Your task to perform on an android device: Open the calendar app, open the side menu, and click the "Day" option Image 0: 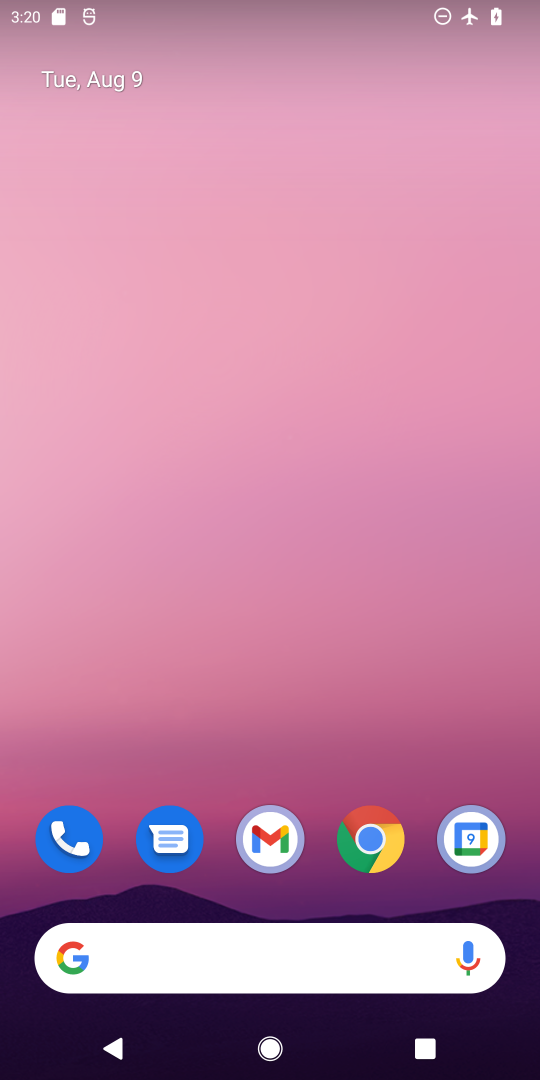
Step 0: press home button
Your task to perform on an android device: Open the calendar app, open the side menu, and click the "Day" option Image 1: 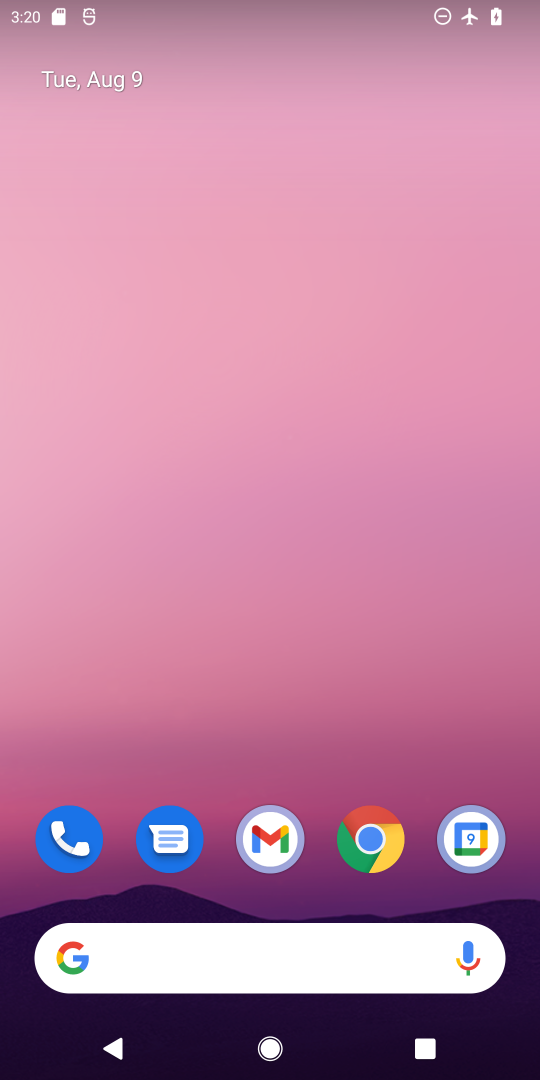
Step 1: drag from (326, 751) to (253, 32)
Your task to perform on an android device: Open the calendar app, open the side menu, and click the "Day" option Image 2: 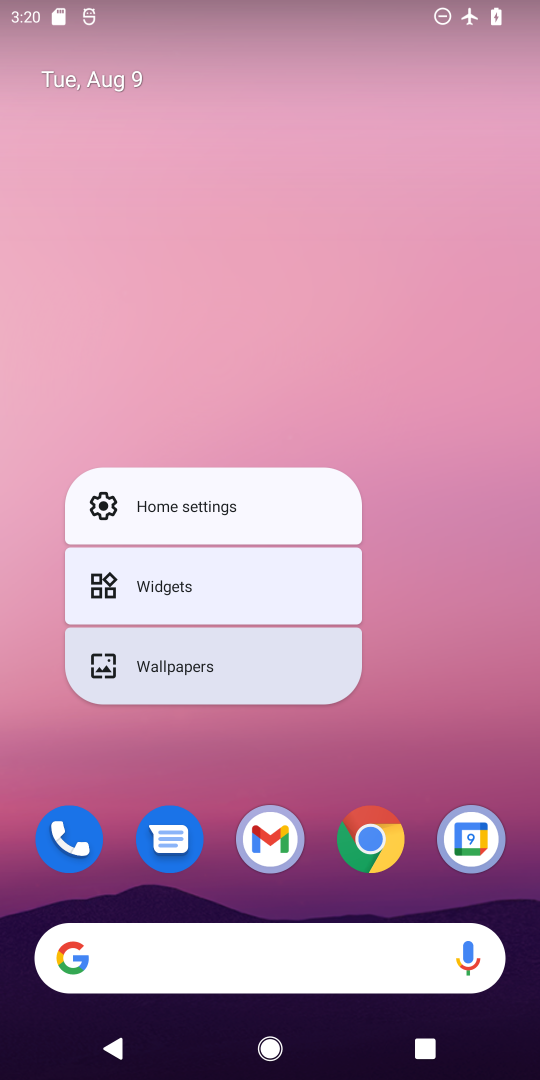
Step 2: drag from (205, 887) to (279, 140)
Your task to perform on an android device: Open the calendar app, open the side menu, and click the "Day" option Image 3: 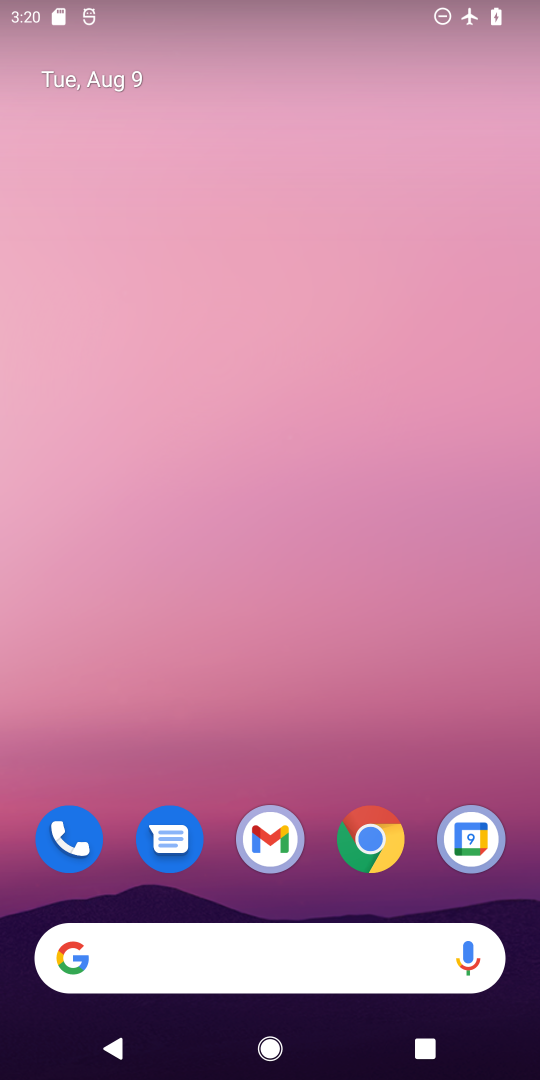
Step 3: drag from (324, 878) to (281, 202)
Your task to perform on an android device: Open the calendar app, open the side menu, and click the "Day" option Image 4: 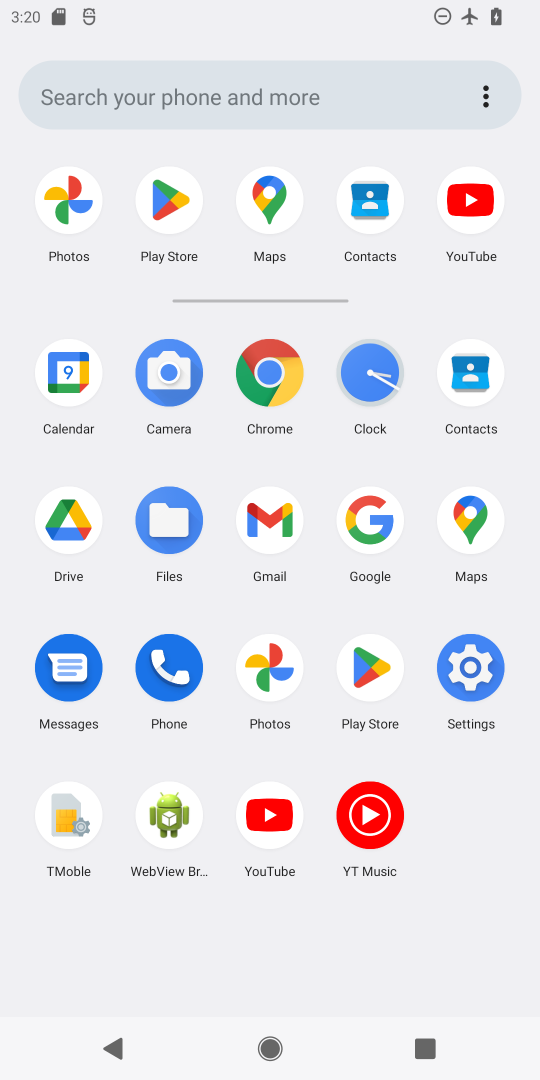
Step 4: click (62, 374)
Your task to perform on an android device: Open the calendar app, open the side menu, and click the "Day" option Image 5: 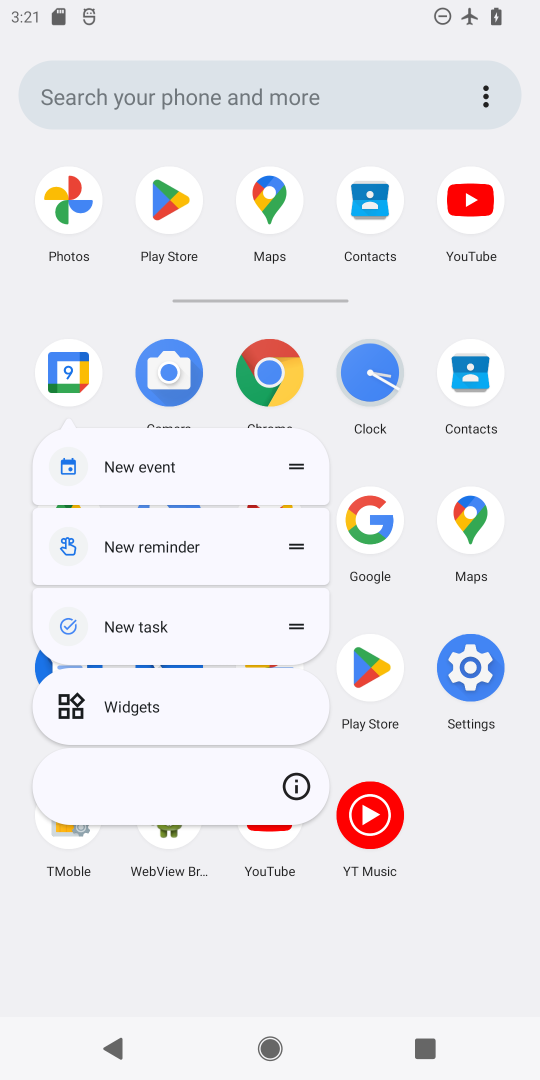
Step 5: click (14, 512)
Your task to perform on an android device: Open the calendar app, open the side menu, and click the "Day" option Image 6: 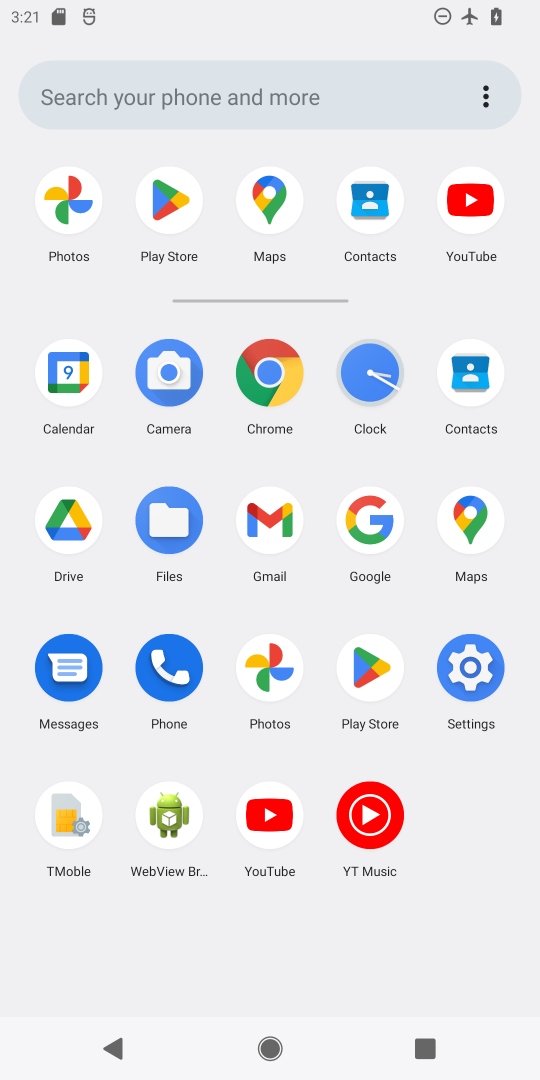
Step 6: click (14, 512)
Your task to perform on an android device: Open the calendar app, open the side menu, and click the "Day" option Image 7: 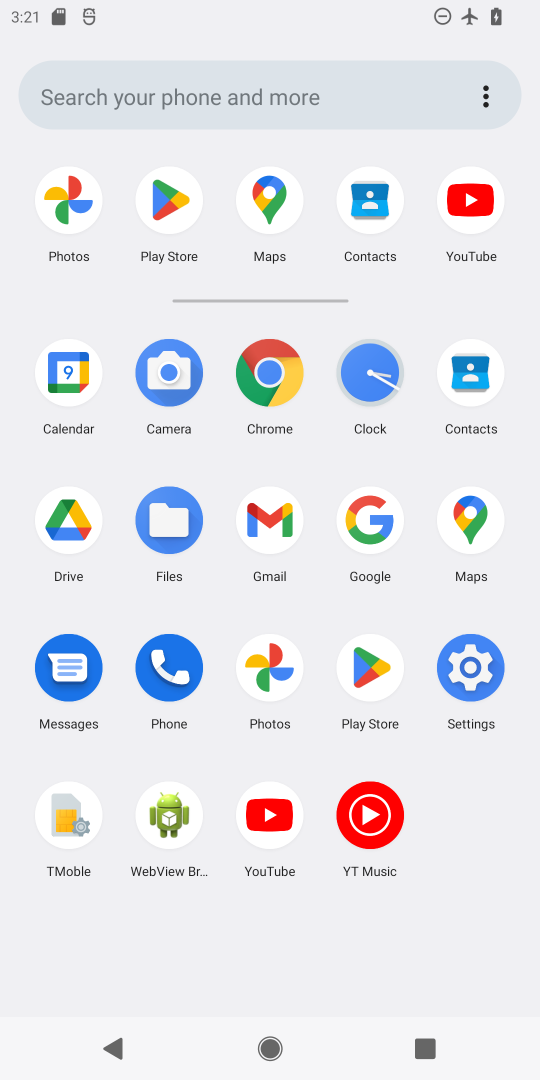
Step 7: click (70, 365)
Your task to perform on an android device: Open the calendar app, open the side menu, and click the "Day" option Image 8: 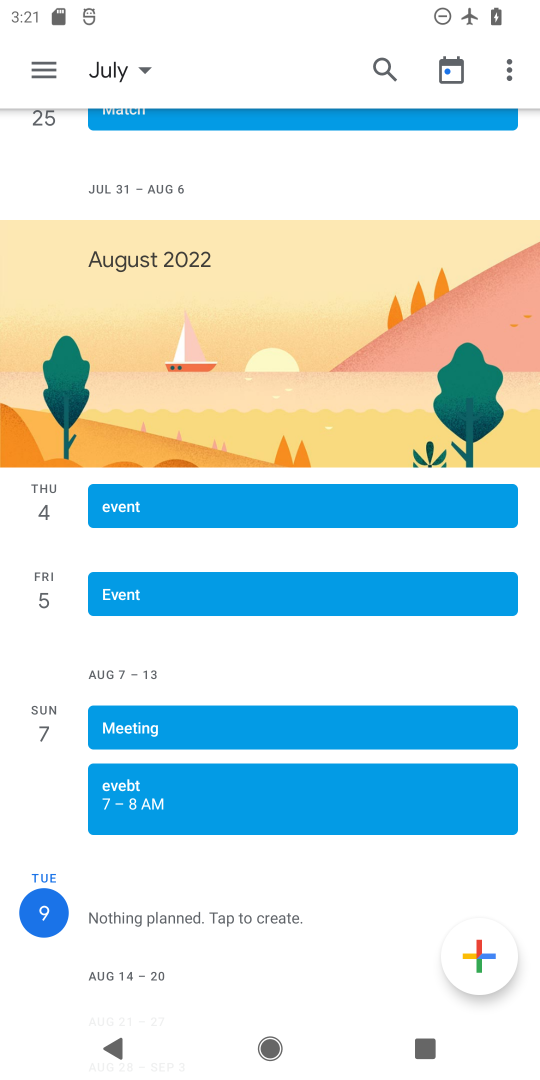
Step 8: click (33, 67)
Your task to perform on an android device: Open the calendar app, open the side menu, and click the "Day" option Image 9: 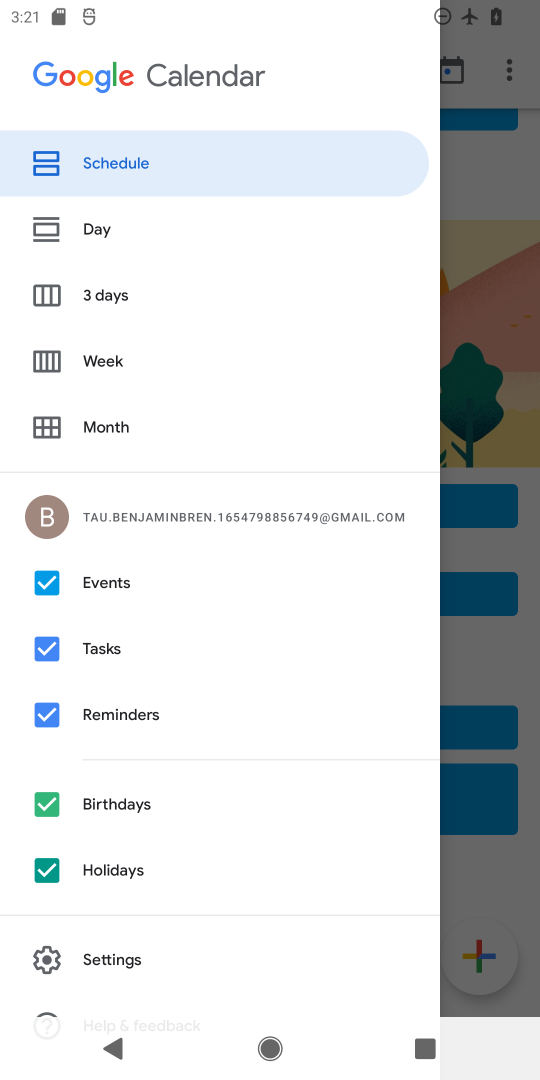
Step 9: click (108, 238)
Your task to perform on an android device: Open the calendar app, open the side menu, and click the "Day" option Image 10: 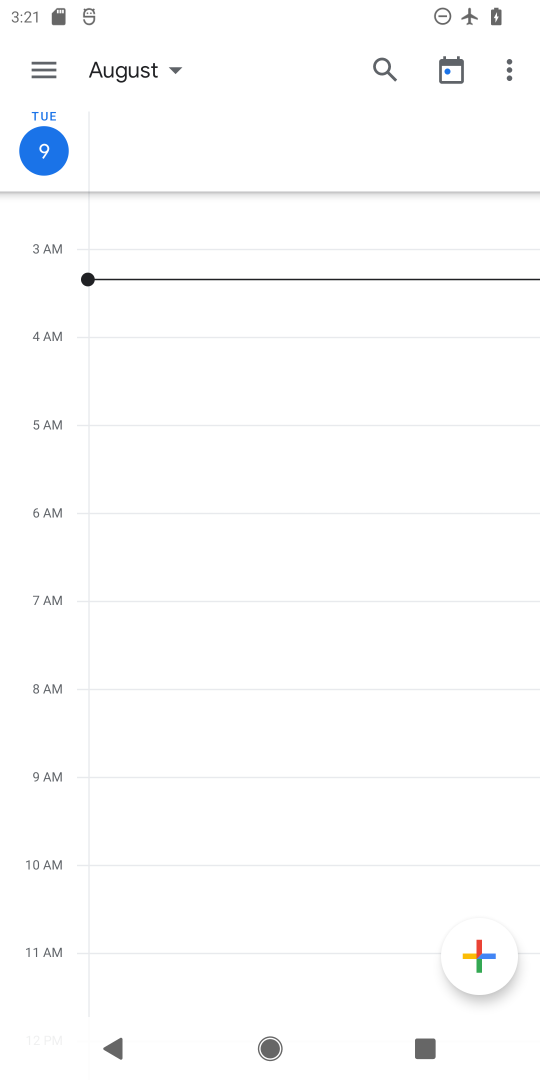
Step 10: task complete